Your task to perform on an android device: Search for flights from Buenos aires to Seoul Image 0: 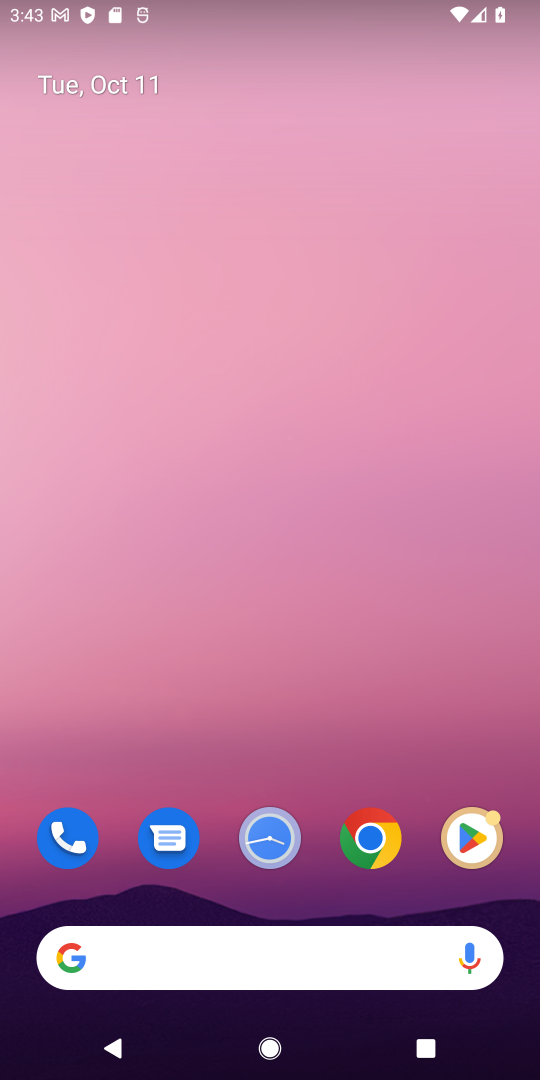
Step 0: click (262, 923)
Your task to perform on an android device: Search for flights from Buenos aires to Seoul Image 1: 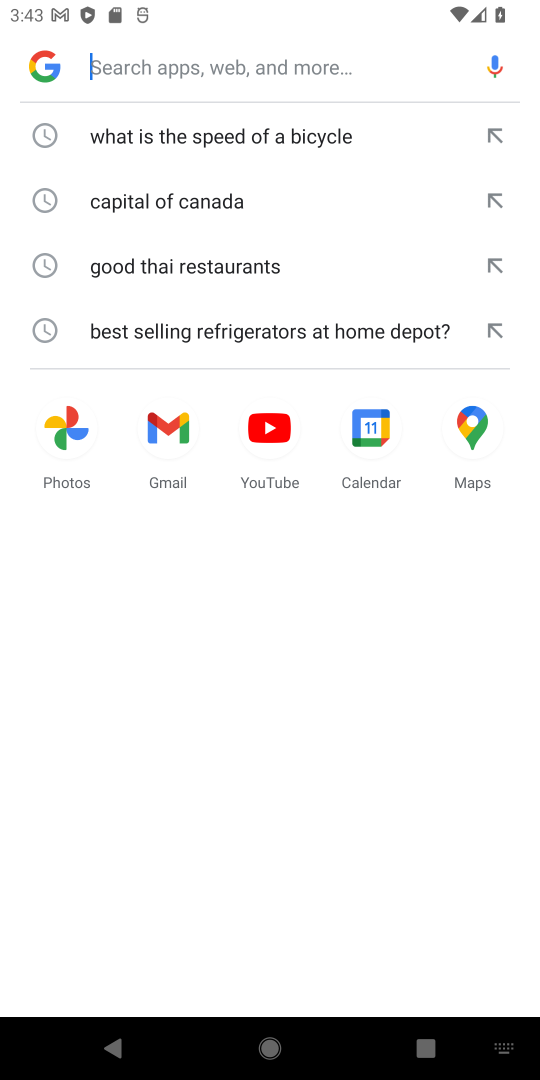
Step 1: click (202, 57)
Your task to perform on an android device: Search for flights from Buenos aires to Seoul Image 2: 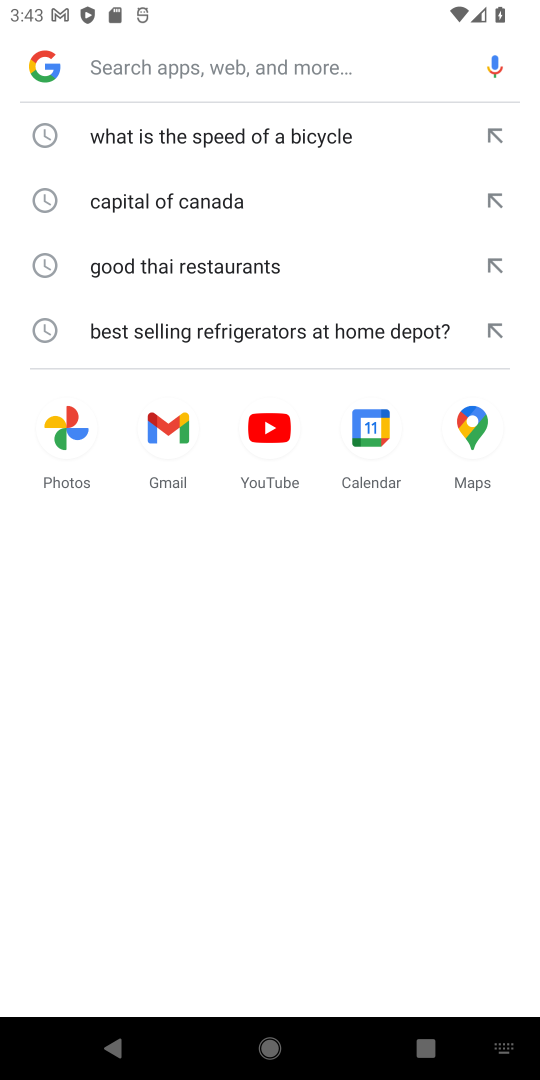
Step 2: type "flights from Buenos aires to Seoul"
Your task to perform on an android device: Search for flights from Buenos aires to Seoul Image 3: 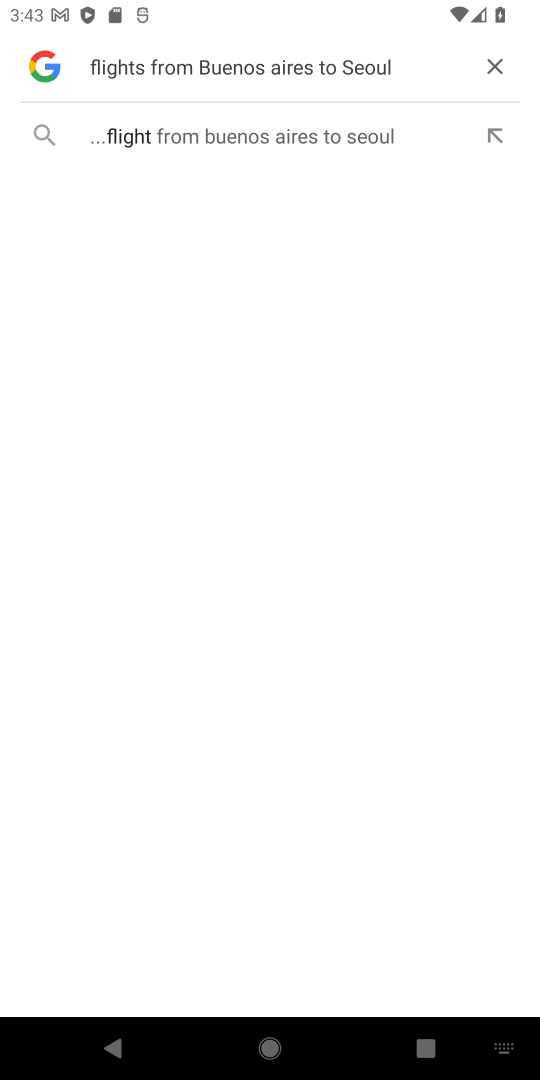
Step 3: click (236, 139)
Your task to perform on an android device: Search for flights from Buenos aires to Seoul Image 4: 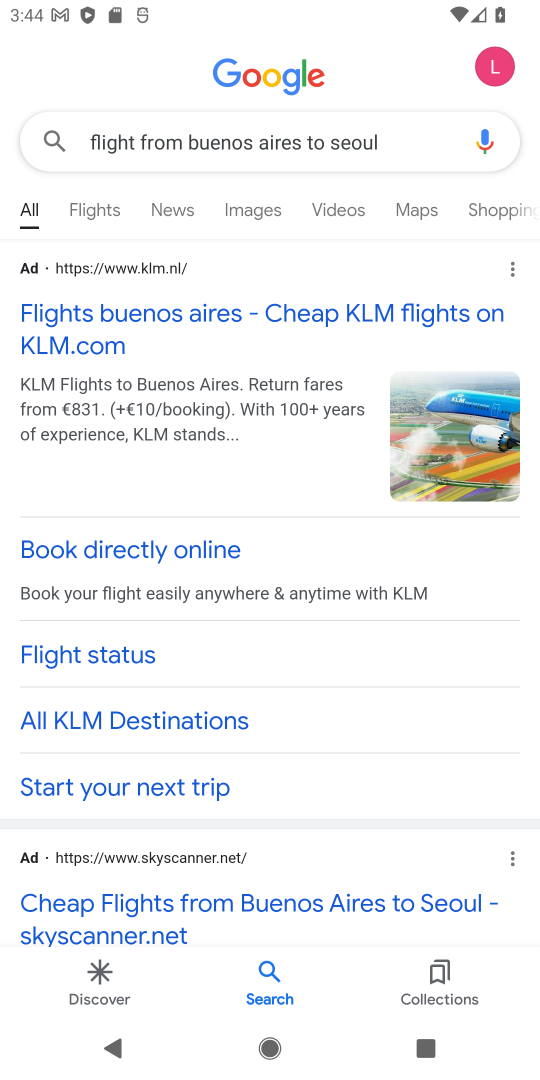
Step 4: task complete